Your task to perform on an android device: Open CNN.com Image 0: 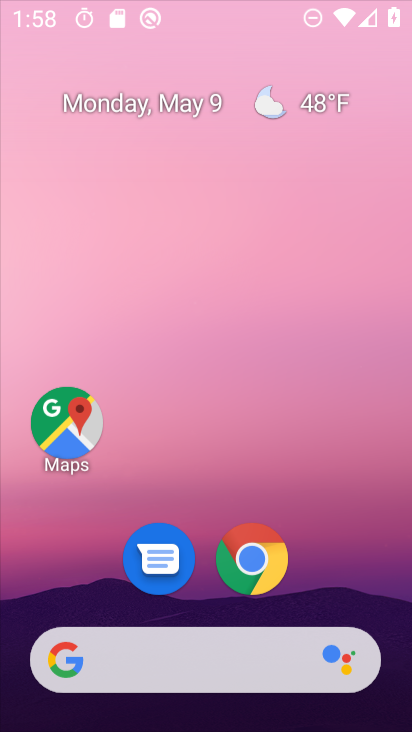
Step 0: drag from (266, 393) to (375, 133)
Your task to perform on an android device: Open CNN.com Image 1: 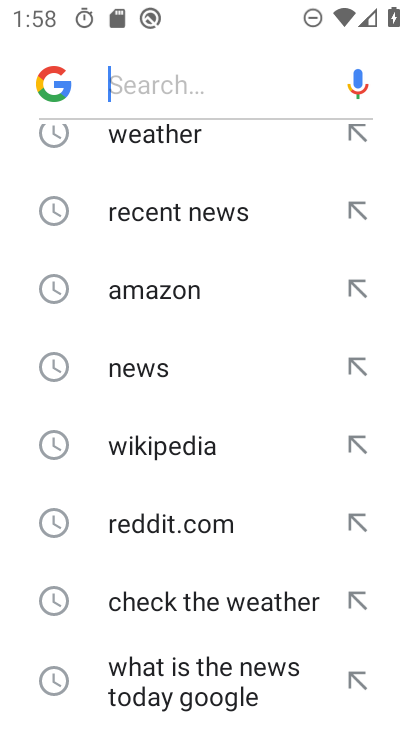
Step 1: drag from (258, 571) to (322, 109)
Your task to perform on an android device: Open CNN.com Image 2: 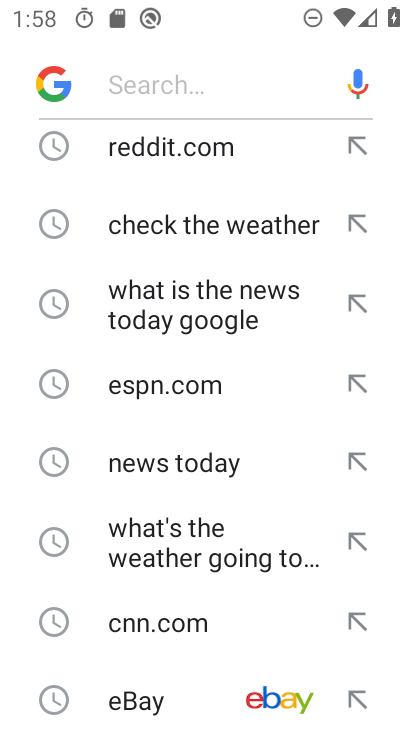
Step 2: click (208, 614)
Your task to perform on an android device: Open CNN.com Image 3: 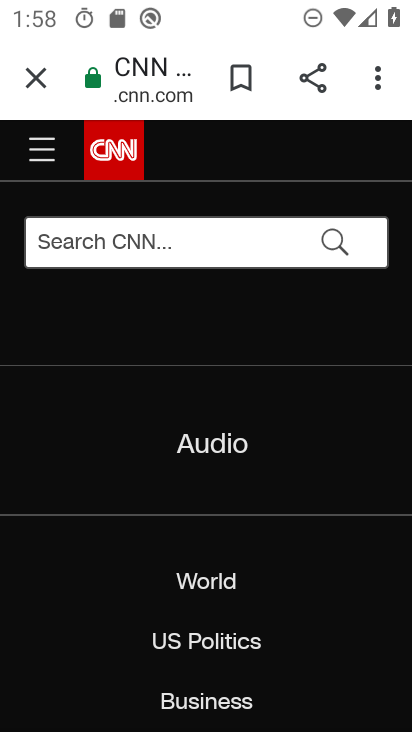
Step 3: task complete